Your task to perform on an android device: Open notification settings Image 0: 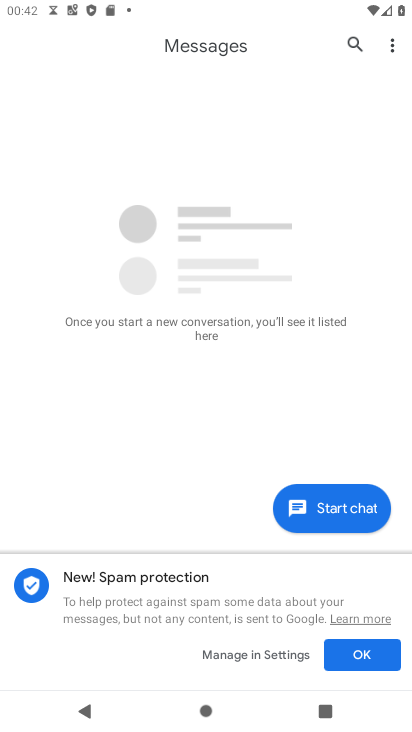
Step 0: press home button
Your task to perform on an android device: Open notification settings Image 1: 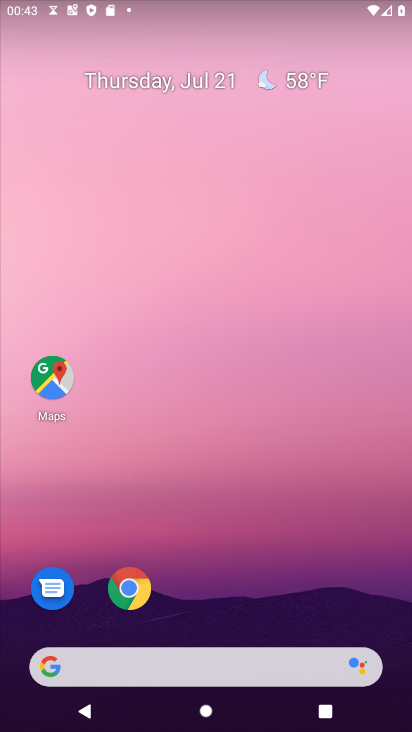
Step 1: drag from (208, 624) to (245, 4)
Your task to perform on an android device: Open notification settings Image 2: 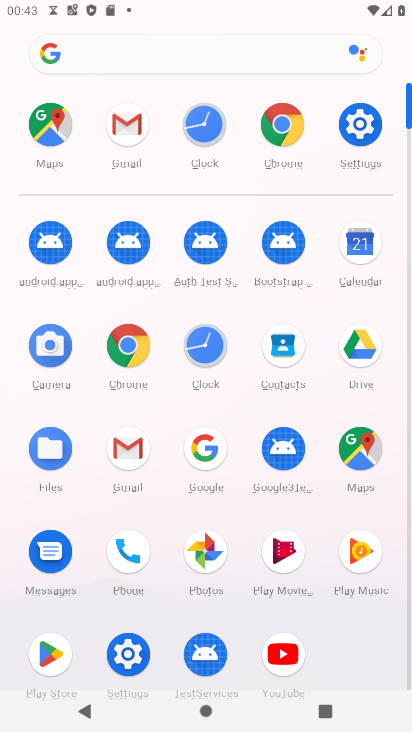
Step 2: click (357, 150)
Your task to perform on an android device: Open notification settings Image 3: 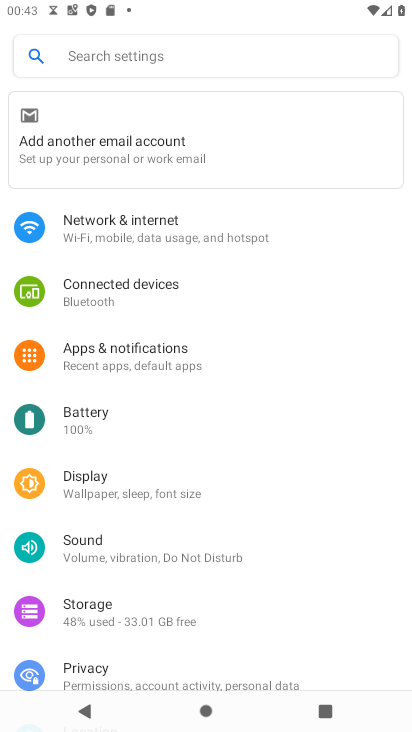
Step 3: click (150, 361)
Your task to perform on an android device: Open notification settings Image 4: 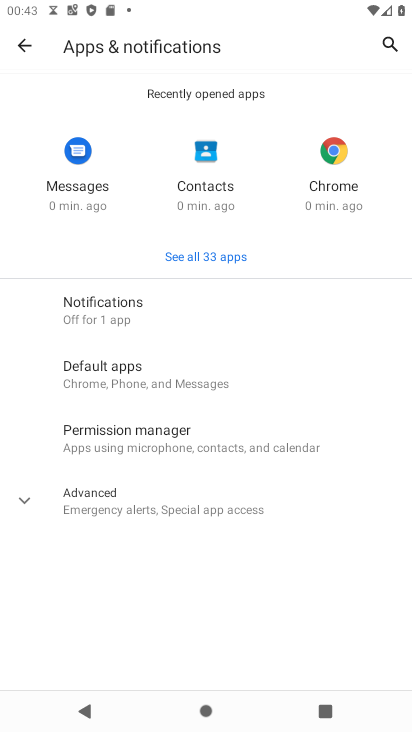
Step 4: click (106, 305)
Your task to perform on an android device: Open notification settings Image 5: 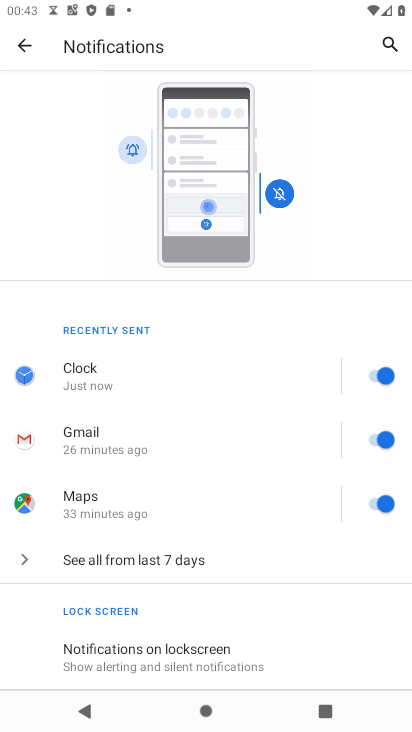
Step 5: task complete